Your task to perform on an android device: Add "razer thresher" to the cart on costco Image 0: 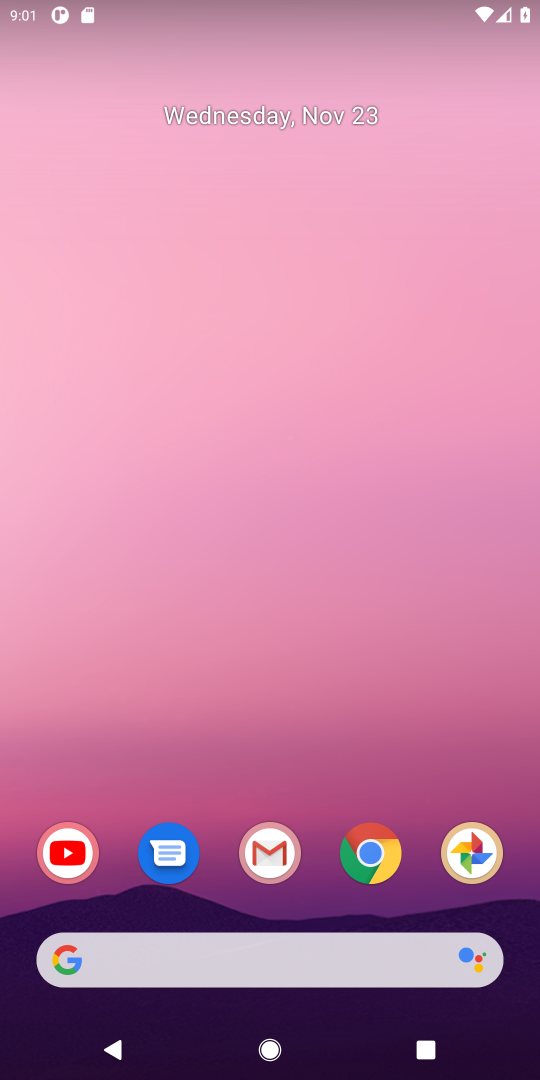
Step 0: click (366, 861)
Your task to perform on an android device: Add "razer thresher" to the cart on costco Image 1: 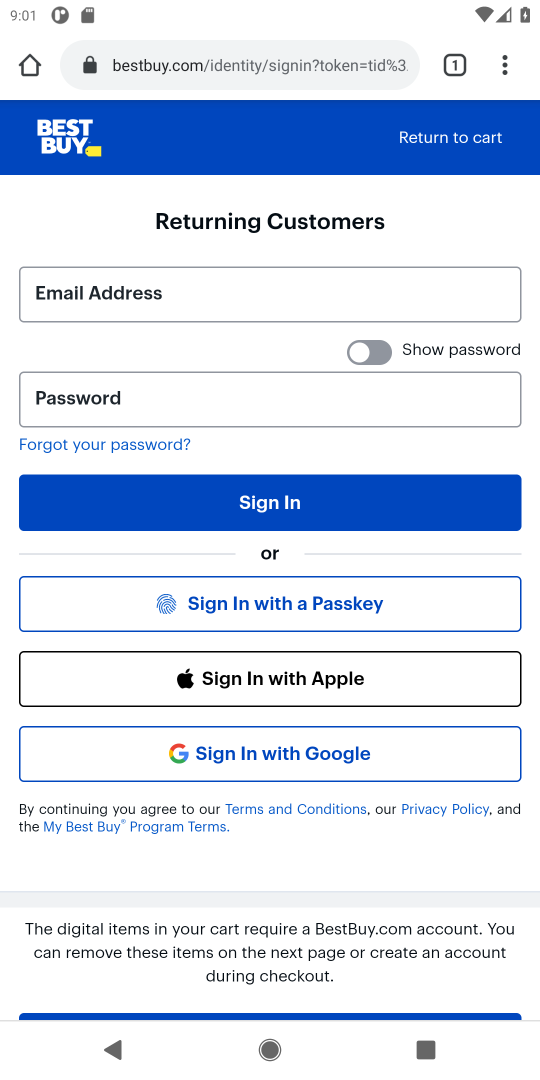
Step 1: click (183, 60)
Your task to perform on an android device: Add "razer thresher" to the cart on costco Image 2: 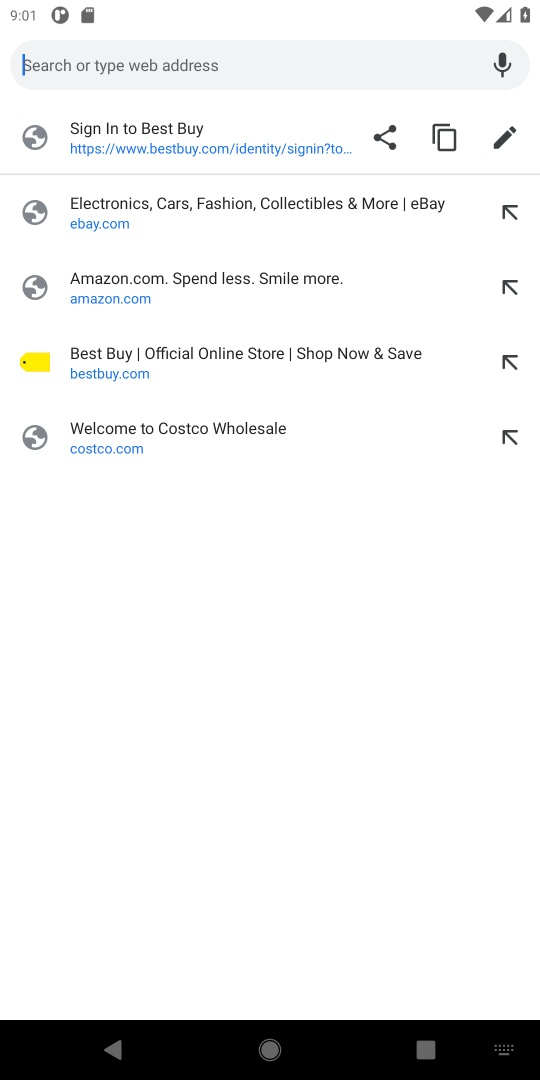
Step 2: click (105, 444)
Your task to perform on an android device: Add "razer thresher" to the cart on costco Image 3: 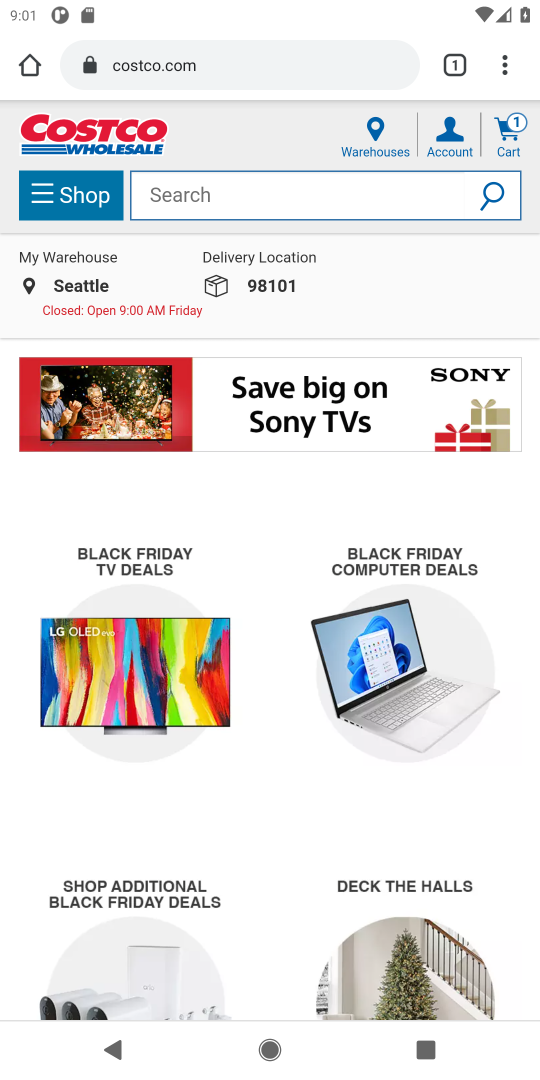
Step 3: click (188, 196)
Your task to perform on an android device: Add "razer thresher" to the cart on costco Image 4: 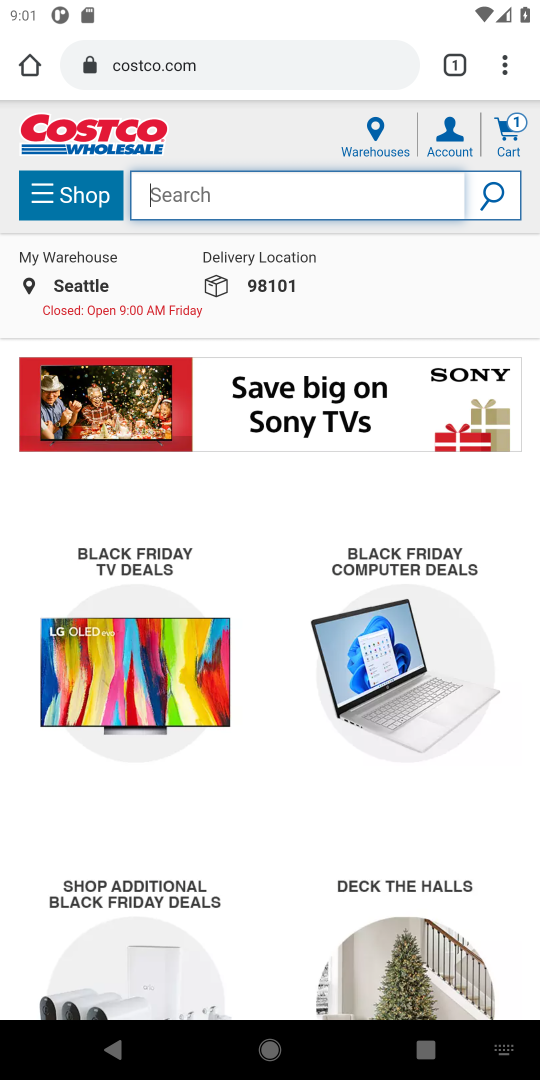
Step 4: type "razer thresher"
Your task to perform on an android device: Add "razer thresher" to the cart on costco Image 5: 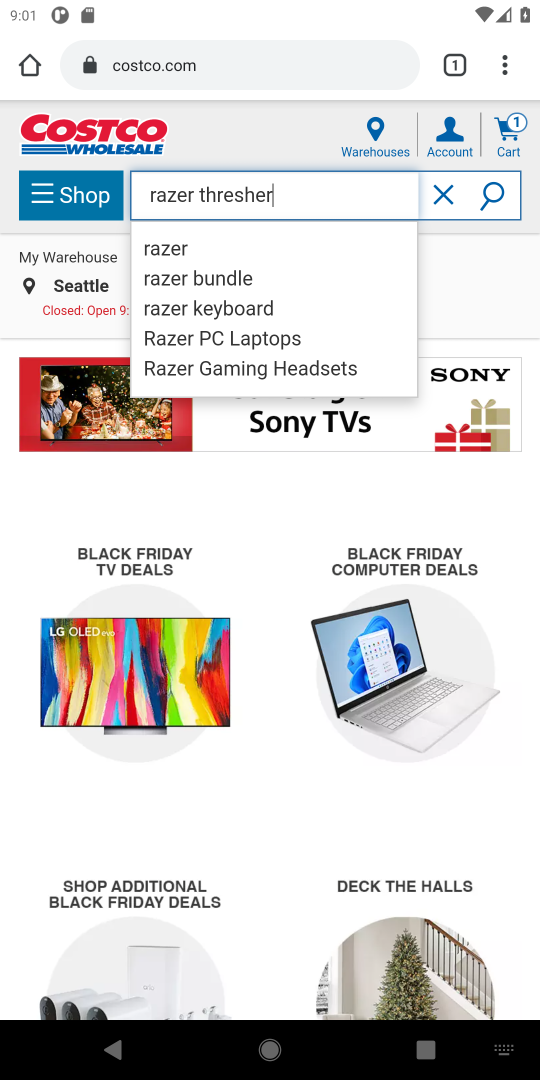
Step 5: click (503, 195)
Your task to perform on an android device: Add "razer thresher" to the cart on costco Image 6: 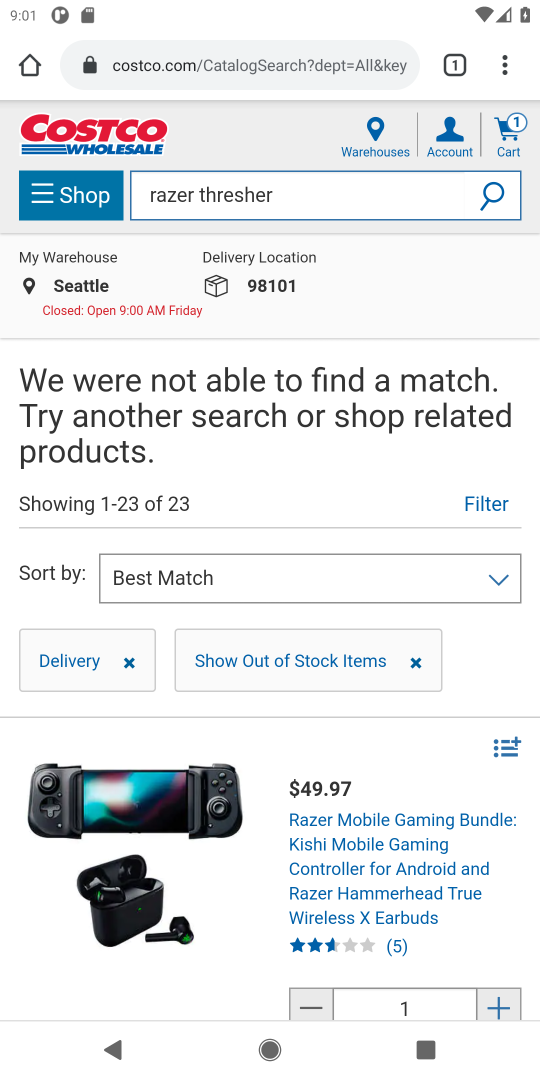
Step 6: task complete